Your task to perform on an android device: Open the Play Movies app and select the watchlist tab. Image 0: 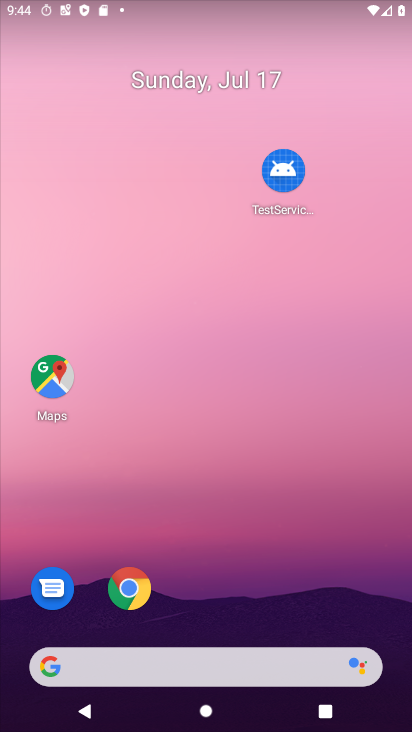
Step 0: drag from (288, 682) to (297, 251)
Your task to perform on an android device: Open the Play Movies app and select the watchlist tab. Image 1: 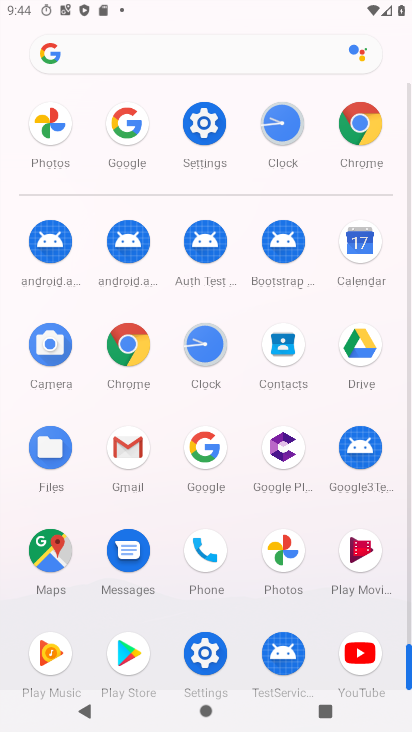
Step 1: click (368, 570)
Your task to perform on an android device: Open the Play Movies app and select the watchlist tab. Image 2: 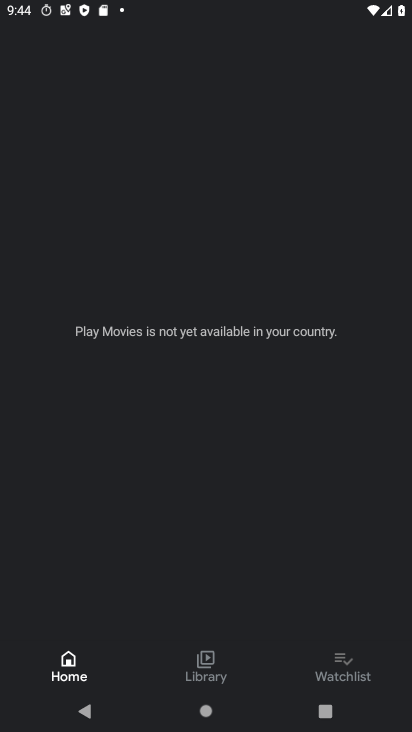
Step 2: click (350, 660)
Your task to perform on an android device: Open the Play Movies app and select the watchlist tab. Image 3: 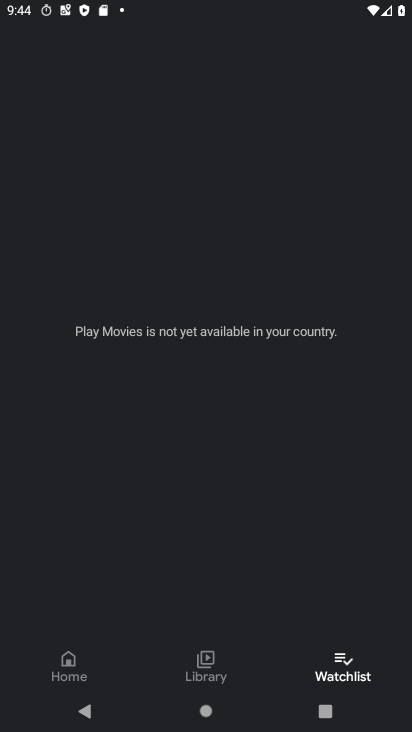
Step 3: task complete